Your task to perform on an android device: Go to display settings Image 0: 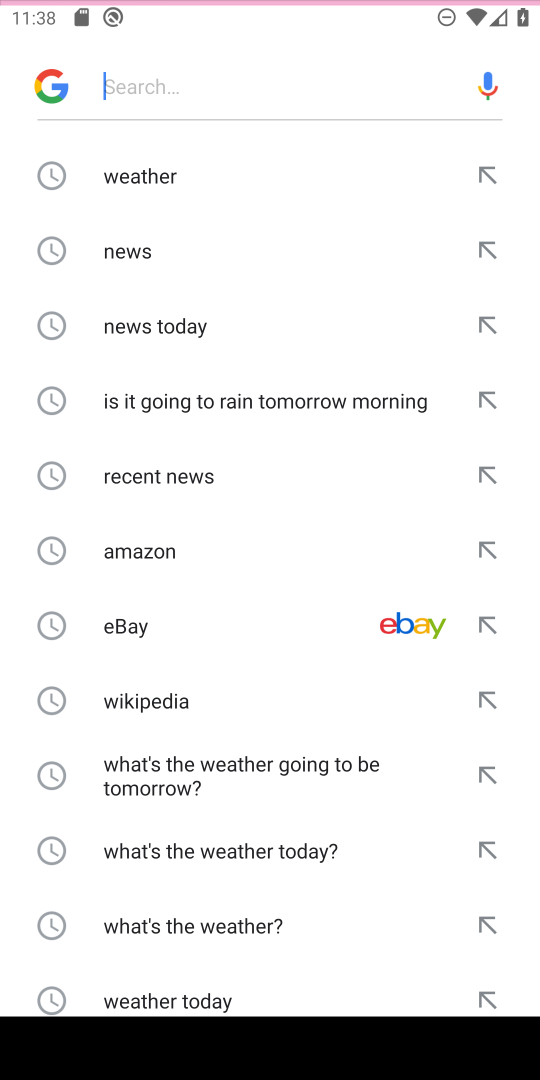
Step 0: press home button
Your task to perform on an android device: Go to display settings Image 1: 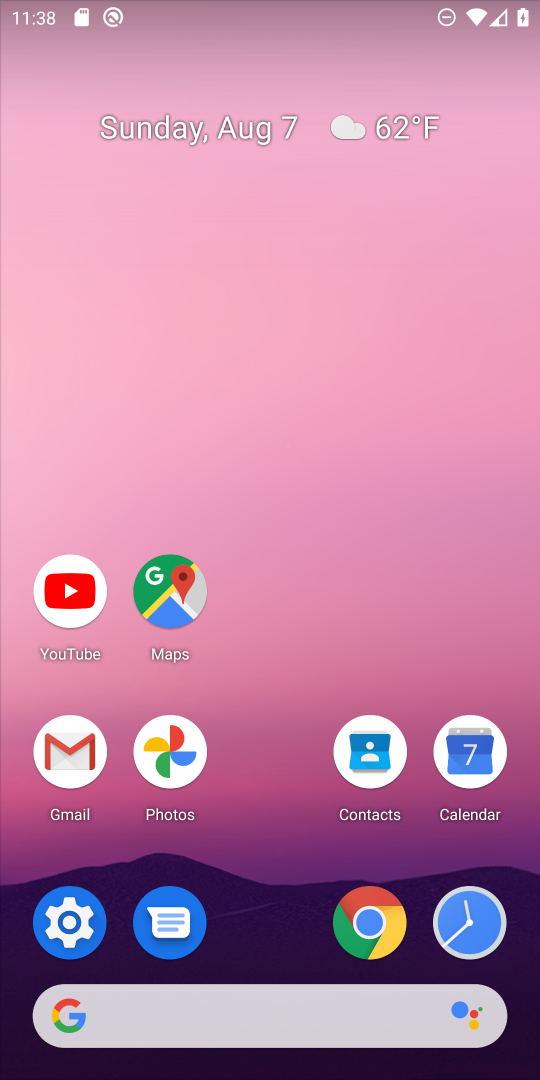
Step 1: click (69, 917)
Your task to perform on an android device: Go to display settings Image 2: 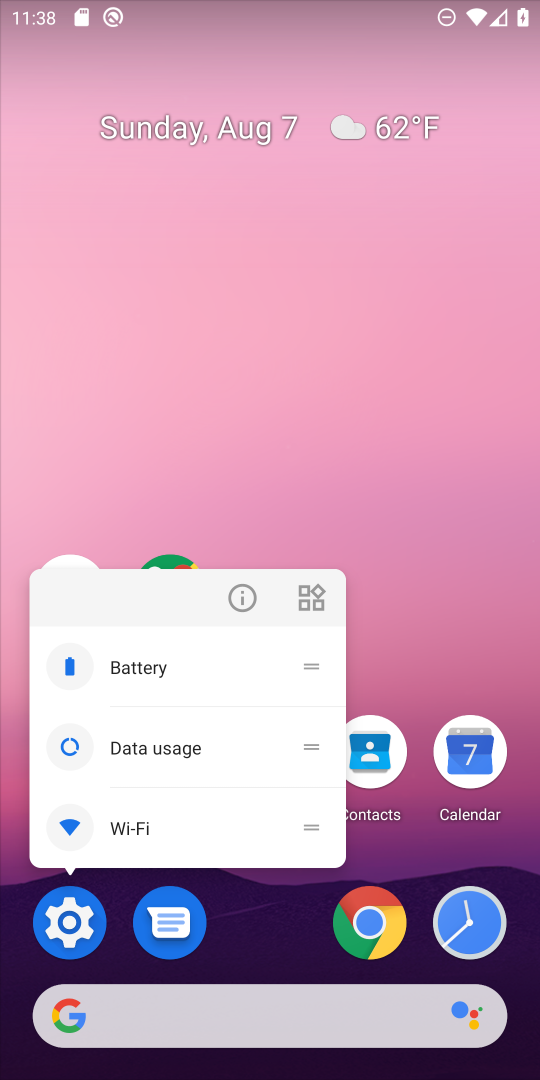
Step 2: click (71, 915)
Your task to perform on an android device: Go to display settings Image 3: 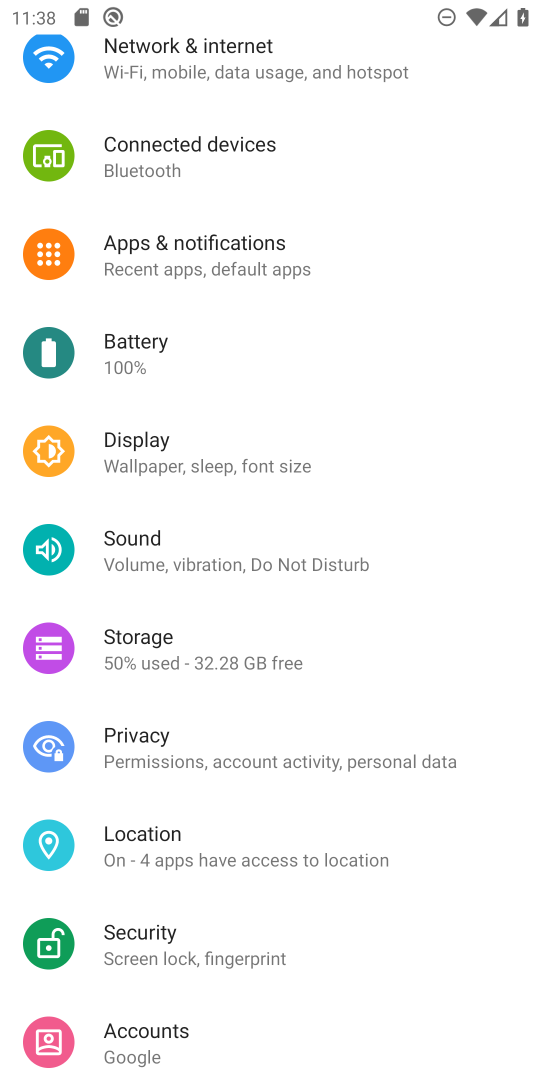
Step 3: click (129, 444)
Your task to perform on an android device: Go to display settings Image 4: 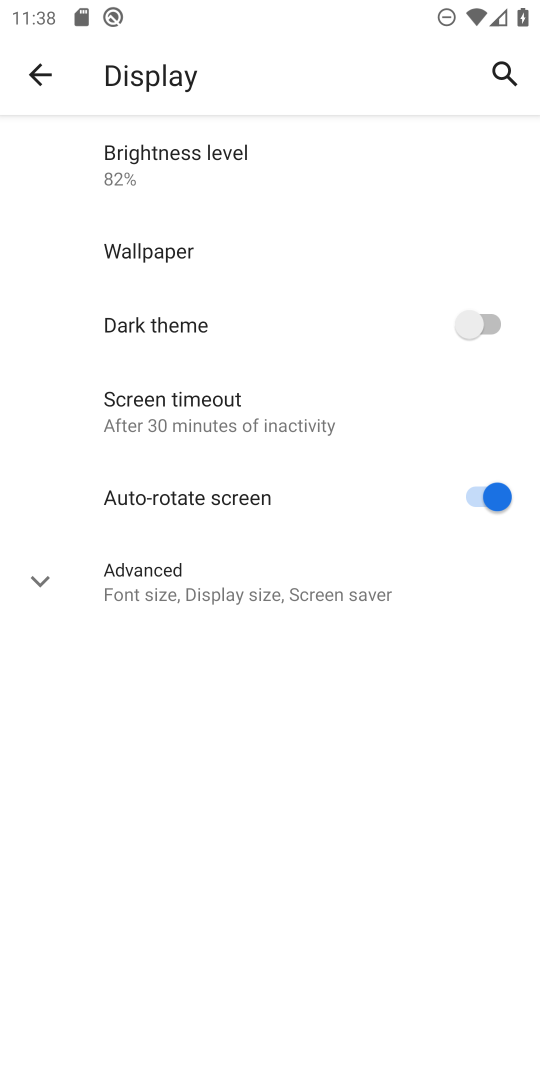
Step 4: task complete